Your task to perform on an android device: remove spam from my inbox in the gmail app Image 0: 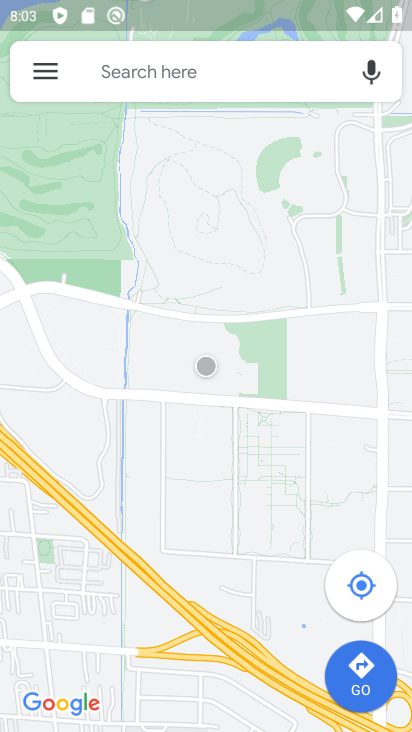
Step 0: press home button
Your task to perform on an android device: remove spam from my inbox in the gmail app Image 1: 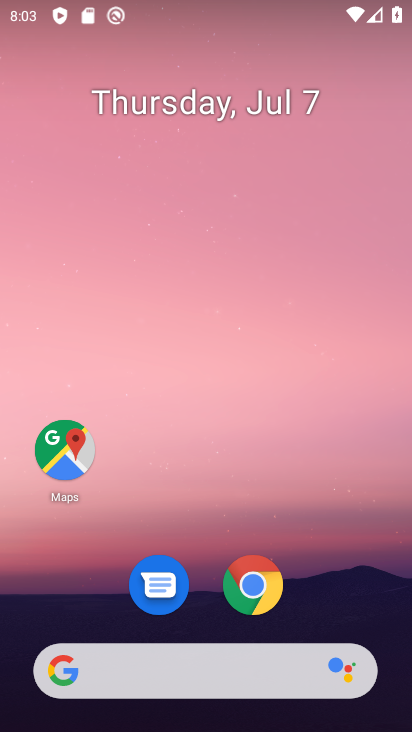
Step 1: drag from (209, 515) to (257, 3)
Your task to perform on an android device: remove spam from my inbox in the gmail app Image 2: 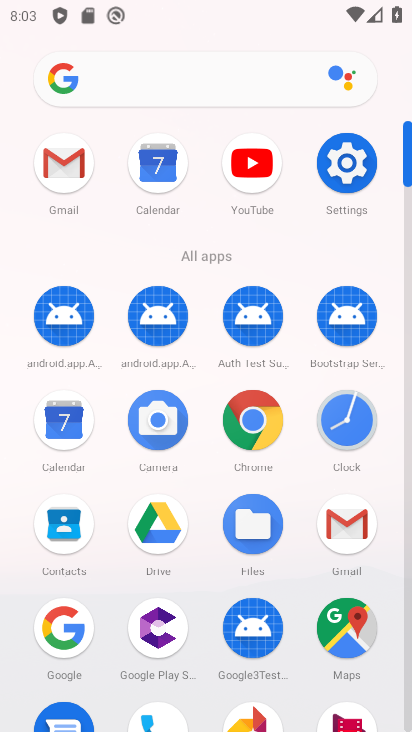
Step 2: click (63, 168)
Your task to perform on an android device: remove spam from my inbox in the gmail app Image 3: 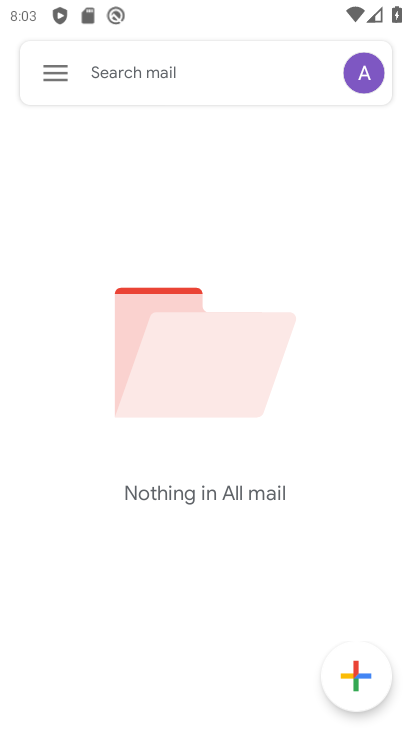
Step 3: click (57, 73)
Your task to perform on an android device: remove spam from my inbox in the gmail app Image 4: 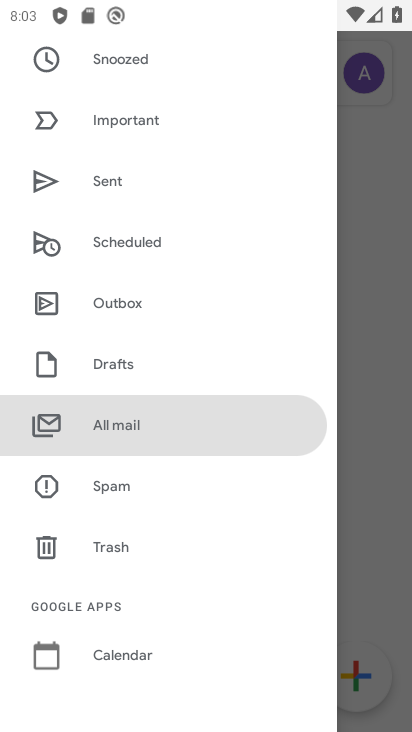
Step 4: click (106, 487)
Your task to perform on an android device: remove spam from my inbox in the gmail app Image 5: 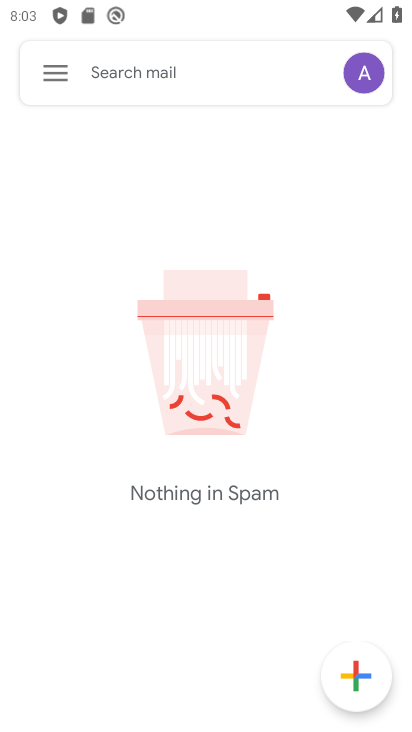
Step 5: task complete